Your task to perform on an android device: stop showing notifications on the lock screen Image 0: 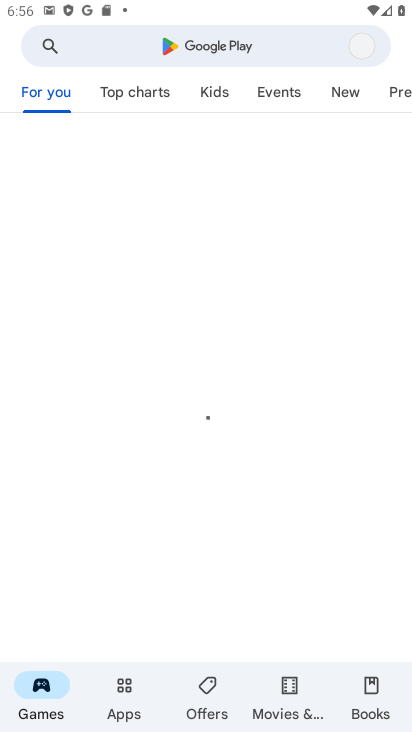
Step 0: press home button
Your task to perform on an android device: stop showing notifications on the lock screen Image 1: 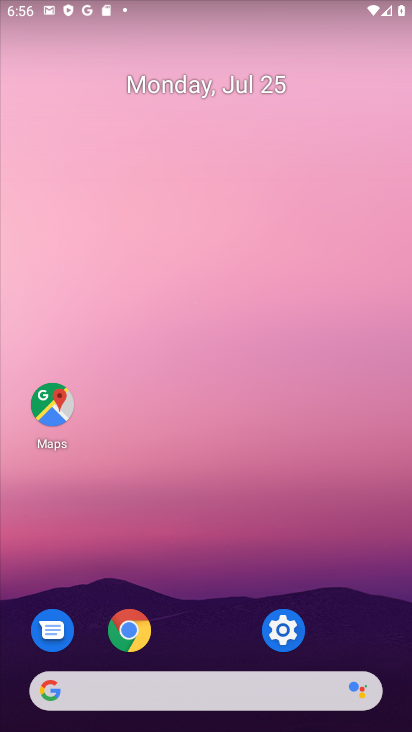
Step 1: click (280, 641)
Your task to perform on an android device: stop showing notifications on the lock screen Image 2: 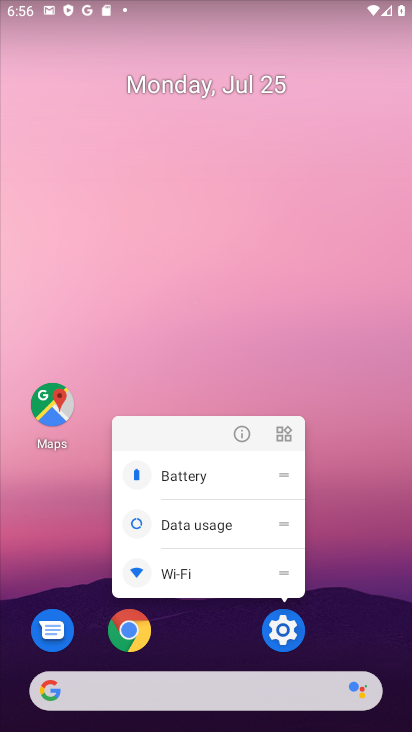
Step 2: click (281, 634)
Your task to perform on an android device: stop showing notifications on the lock screen Image 3: 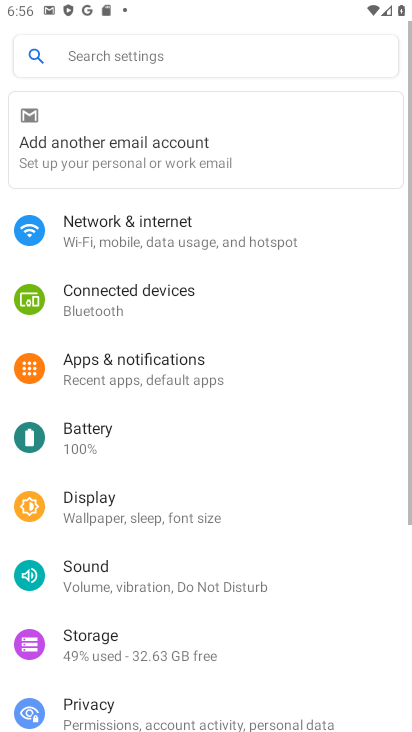
Step 3: click (142, 57)
Your task to perform on an android device: stop showing notifications on the lock screen Image 4: 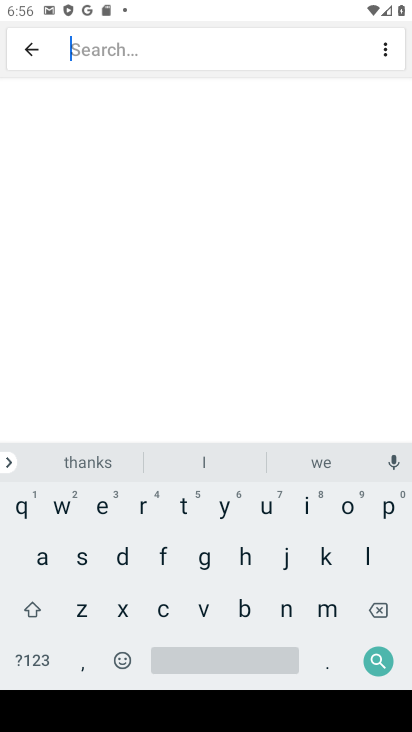
Step 4: click (290, 618)
Your task to perform on an android device: stop showing notifications on the lock screen Image 5: 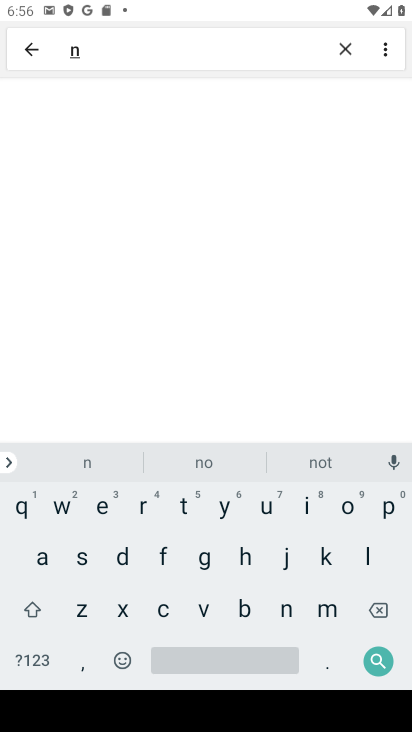
Step 5: click (346, 508)
Your task to perform on an android device: stop showing notifications on the lock screen Image 6: 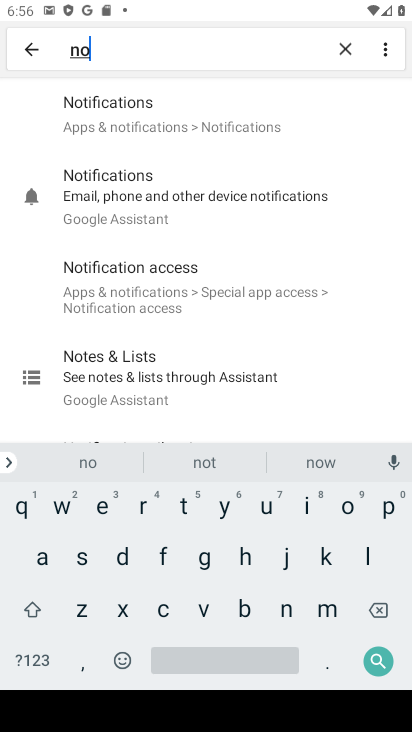
Step 6: click (136, 121)
Your task to perform on an android device: stop showing notifications on the lock screen Image 7: 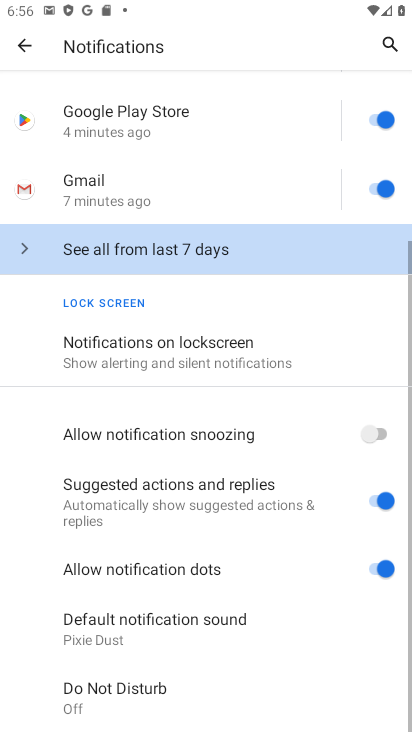
Step 7: click (155, 359)
Your task to perform on an android device: stop showing notifications on the lock screen Image 8: 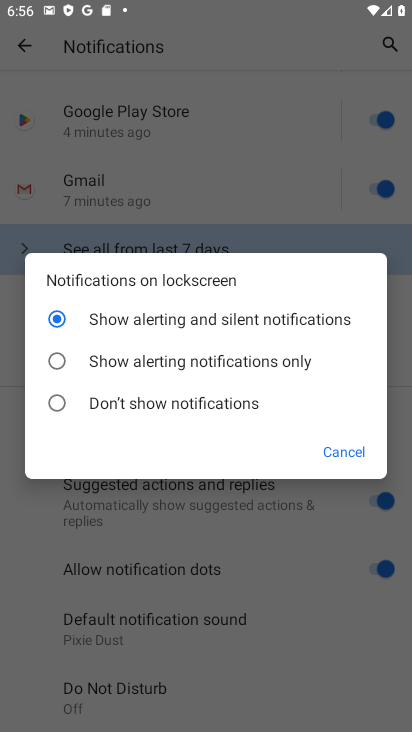
Step 8: click (114, 409)
Your task to perform on an android device: stop showing notifications on the lock screen Image 9: 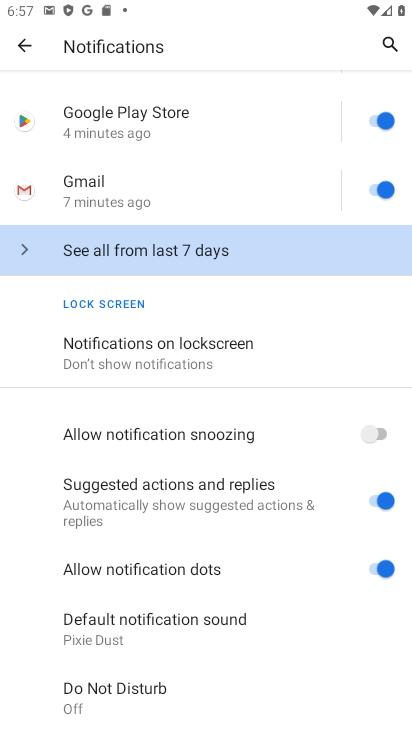
Step 9: click (137, 356)
Your task to perform on an android device: stop showing notifications on the lock screen Image 10: 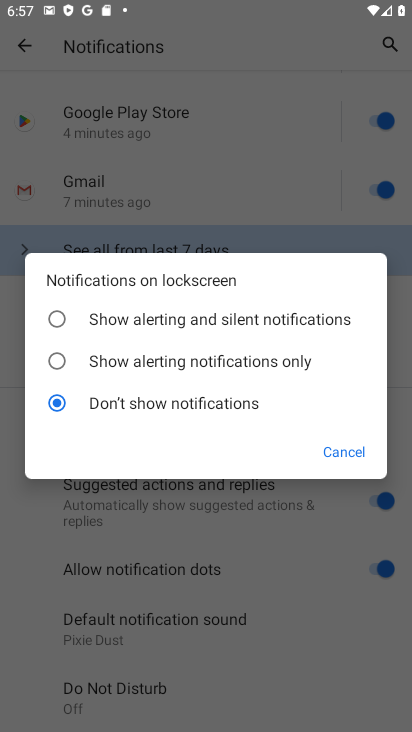
Step 10: task complete